Your task to perform on an android device: Go to internet settings Image 0: 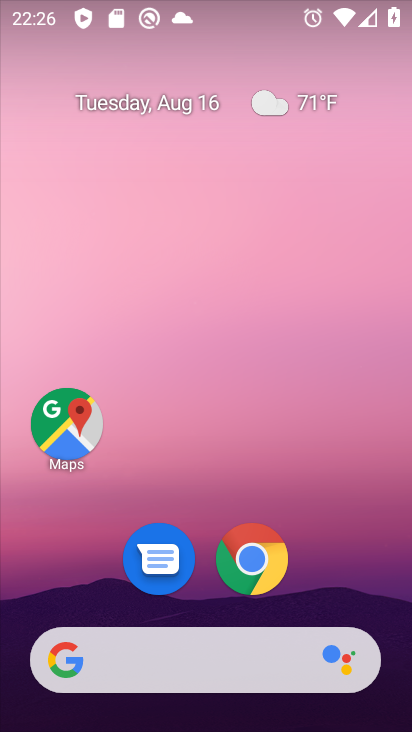
Step 0: drag from (175, 663) to (220, 41)
Your task to perform on an android device: Go to internet settings Image 1: 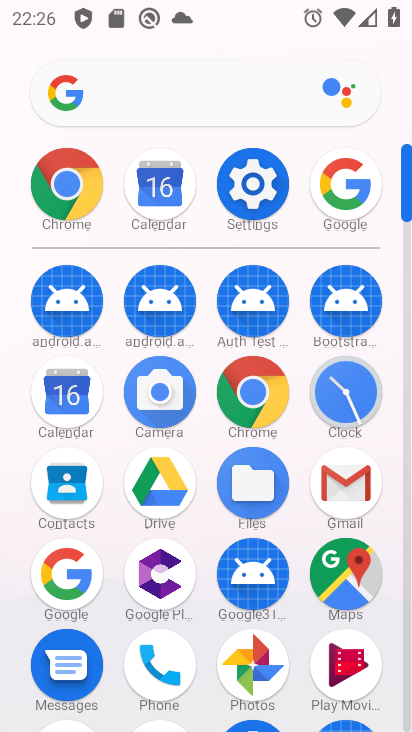
Step 1: click (251, 183)
Your task to perform on an android device: Go to internet settings Image 2: 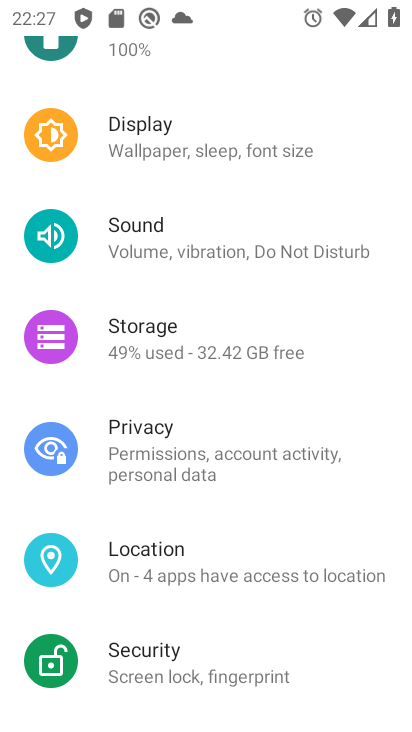
Step 2: drag from (225, 135) to (222, 341)
Your task to perform on an android device: Go to internet settings Image 3: 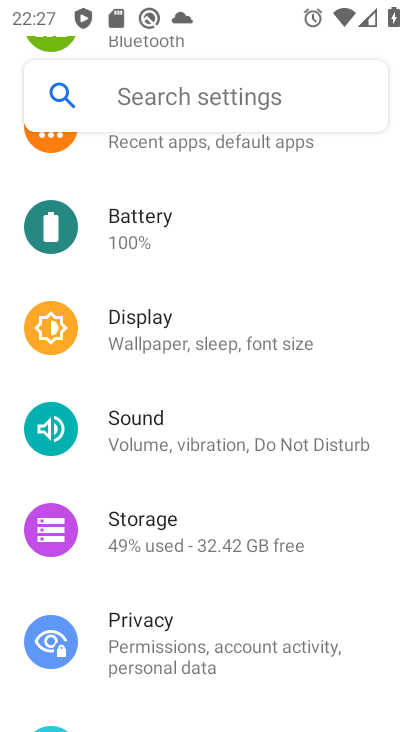
Step 3: drag from (216, 218) to (205, 409)
Your task to perform on an android device: Go to internet settings Image 4: 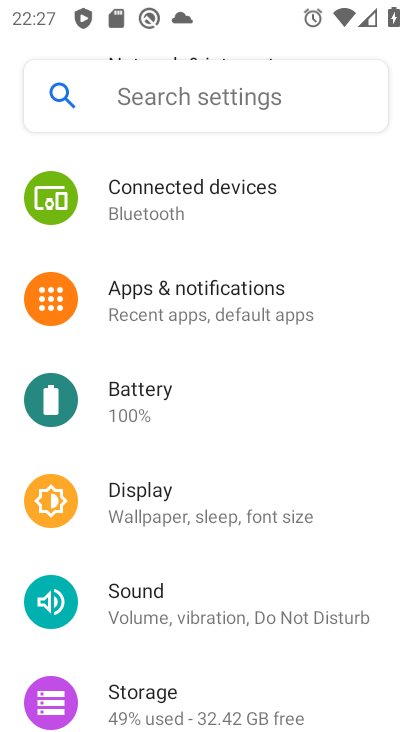
Step 4: drag from (203, 231) to (214, 476)
Your task to perform on an android device: Go to internet settings Image 5: 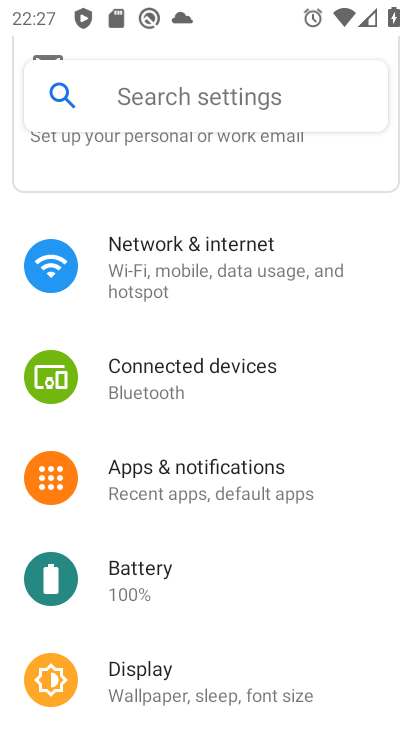
Step 5: click (189, 251)
Your task to perform on an android device: Go to internet settings Image 6: 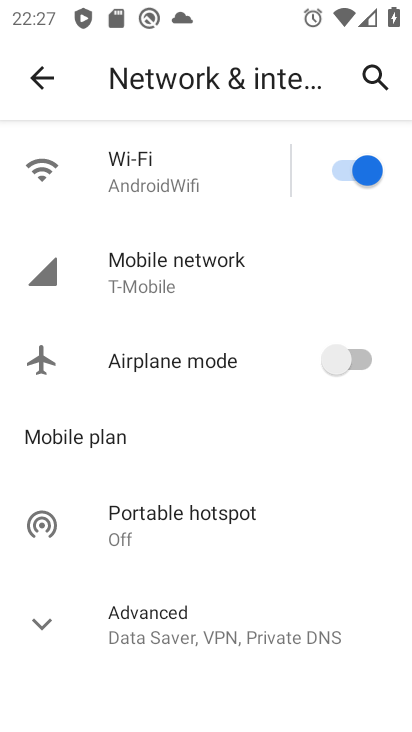
Step 6: click (135, 192)
Your task to perform on an android device: Go to internet settings Image 7: 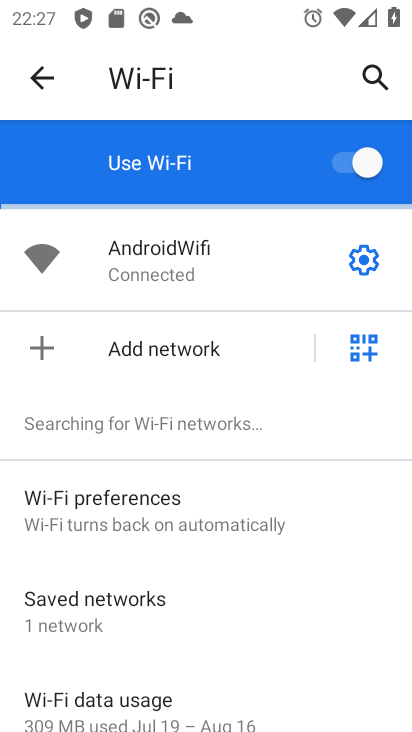
Step 7: task complete